Your task to perform on an android device: Is it going to rain tomorrow? Image 0: 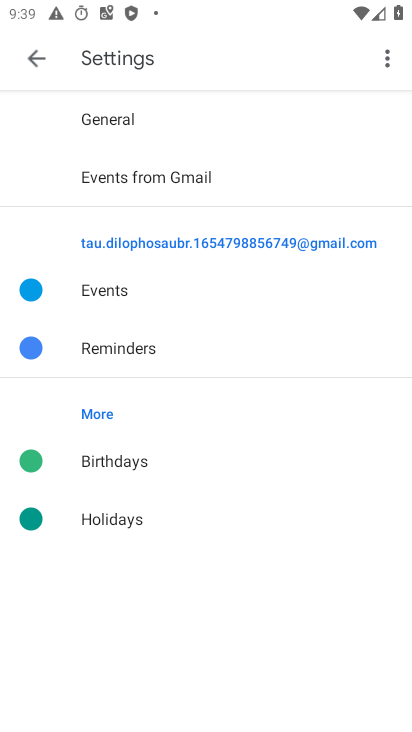
Step 0: press home button
Your task to perform on an android device: Is it going to rain tomorrow? Image 1: 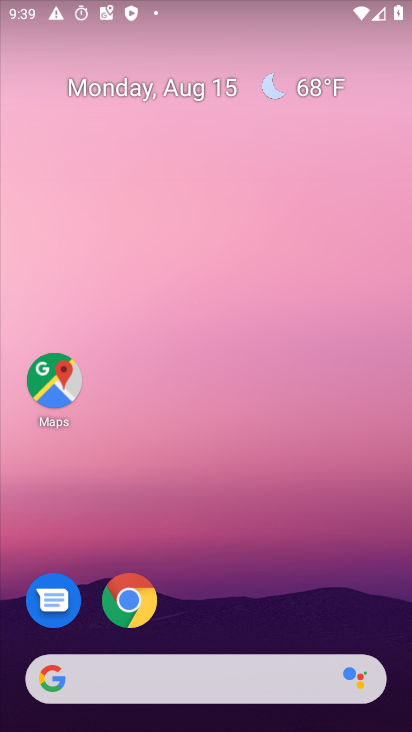
Step 1: click (271, 87)
Your task to perform on an android device: Is it going to rain tomorrow? Image 2: 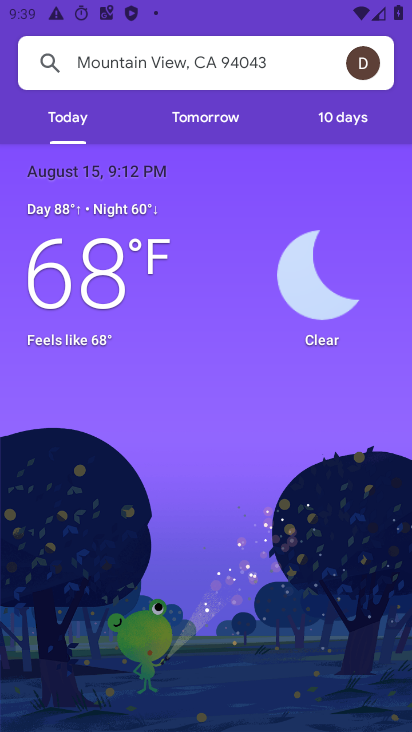
Step 2: click (208, 120)
Your task to perform on an android device: Is it going to rain tomorrow? Image 3: 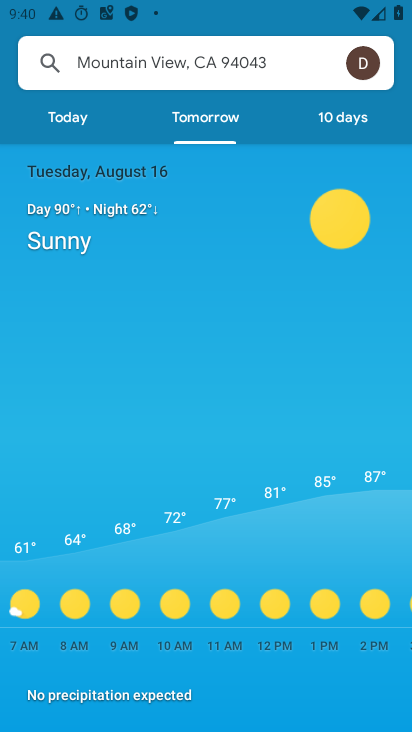
Step 3: task complete